Your task to perform on an android device: Open display settings Image 0: 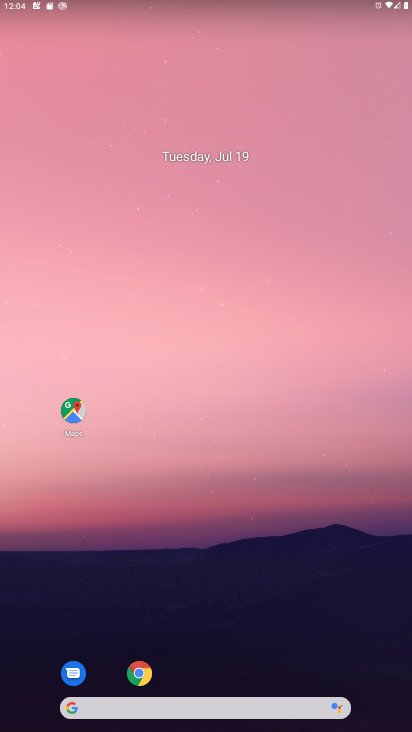
Step 0: drag from (186, 680) to (247, 134)
Your task to perform on an android device: Open display settings Image 1: 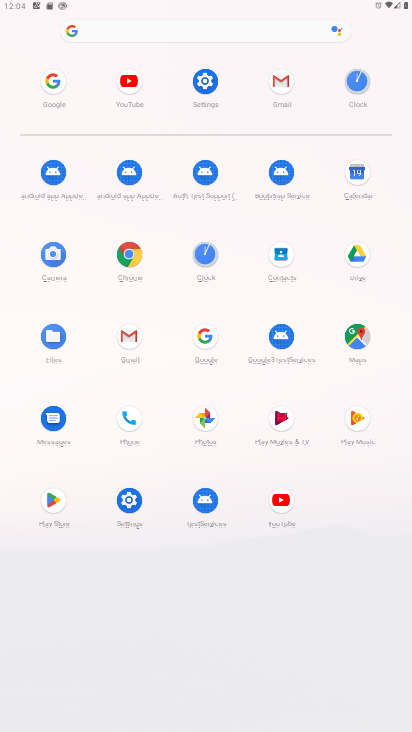
Step 1: click (196, 86)
Your task to perform on an android device: Open display settings Image 2: 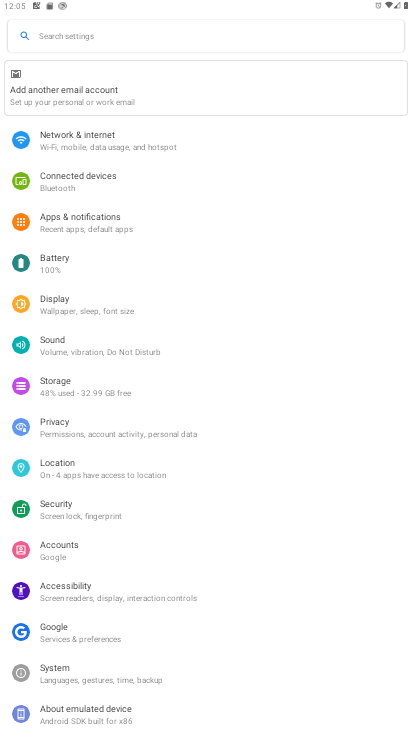
Step 2: click (88, 294)
Your task to perform on an android device: Open display settings Image 3: 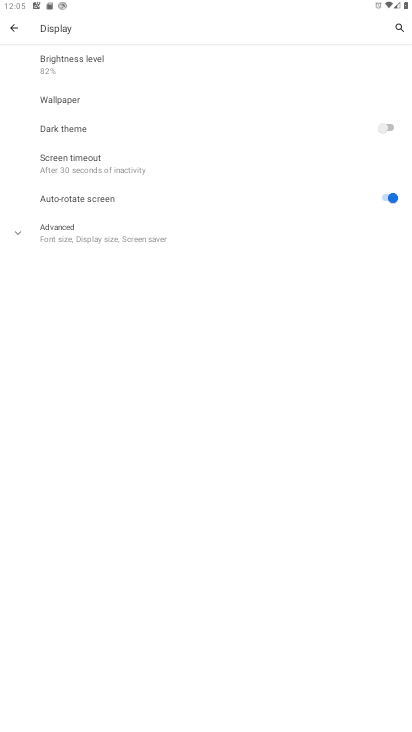
Step 3: task complete